Your task to perform on an android device: Go to wifi settings Image 0: 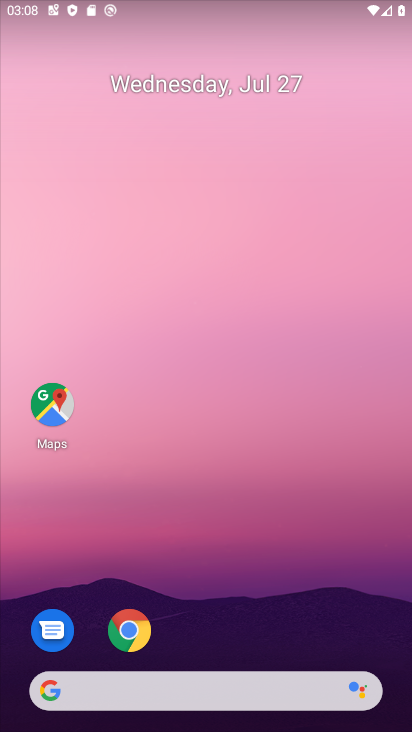
Step 0: drag from (290, 670) to (210, 46)
Your task to perform on an android device: Go to wifi settings Image 1: 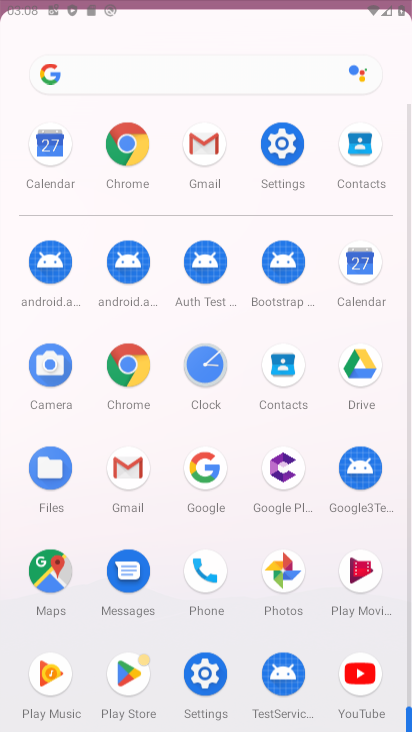
Step 1: drag from (243, 430) to (167, 131)
Your task to perform on an android device: Go to wifi settings Image 2: 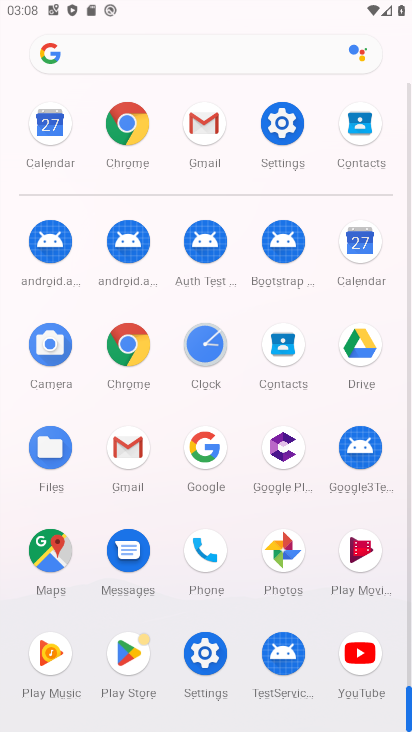
Step 2: drag from (343, 668) to (228, 147)
Your task to perform on an android device: Go to wifi settings Image 3: 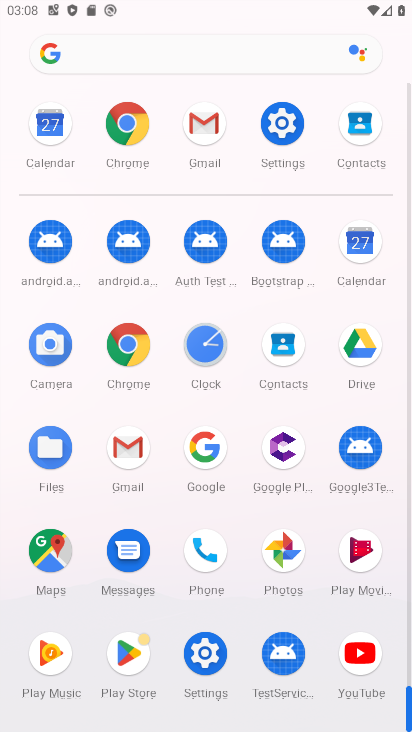
Step 3: click (202, 645)
Your task to perform on an android device: Go to wifi settings Image 4: 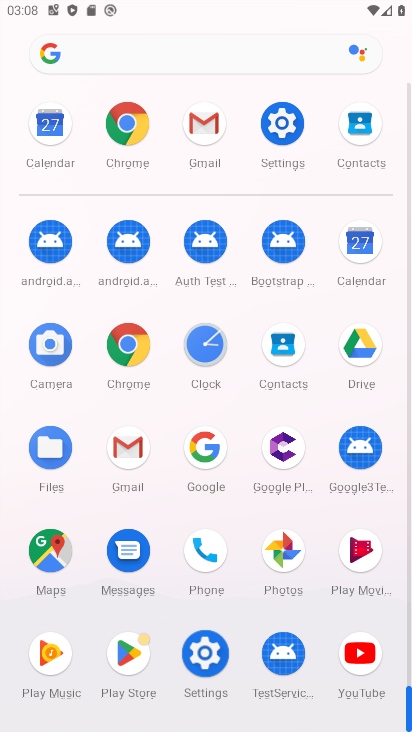
Step 4: click (207, 645)
Your task to perform on an android device: Go to wifi settings Image 5: 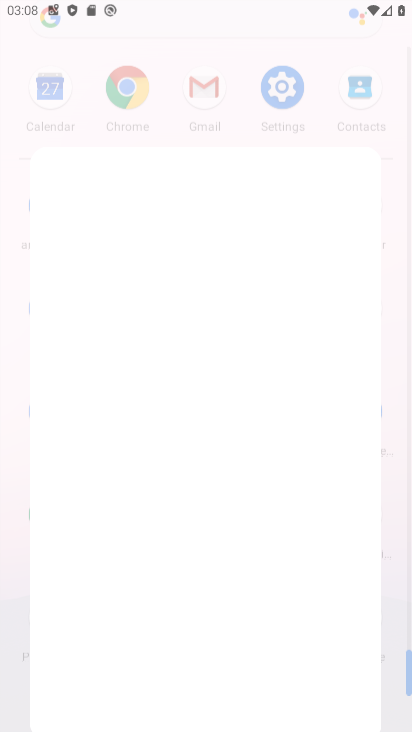
Step 5: click (208, 645)
Your task to perform on an android device: Go to wifi settings Image 6: 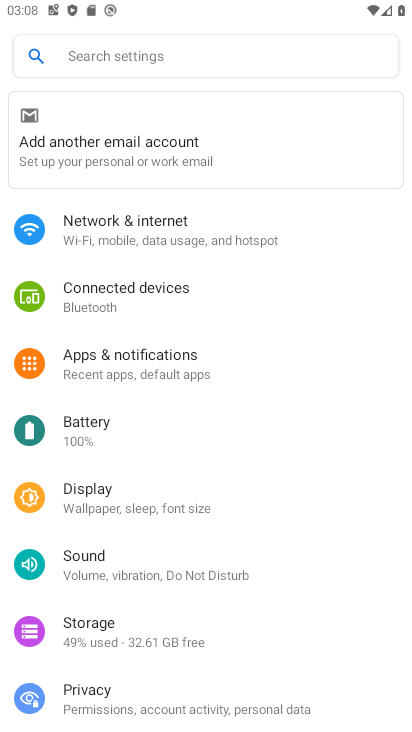
Step 6: click (98, 234)
Your task to perform on an android device: Go to wifi settings Image 7: 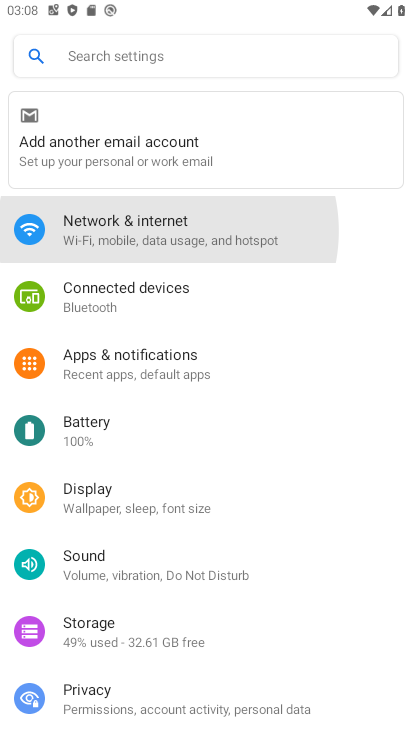
Step 7: click (106, 234)
Your task to perform on an android device: Go to wifi settings Image 8: 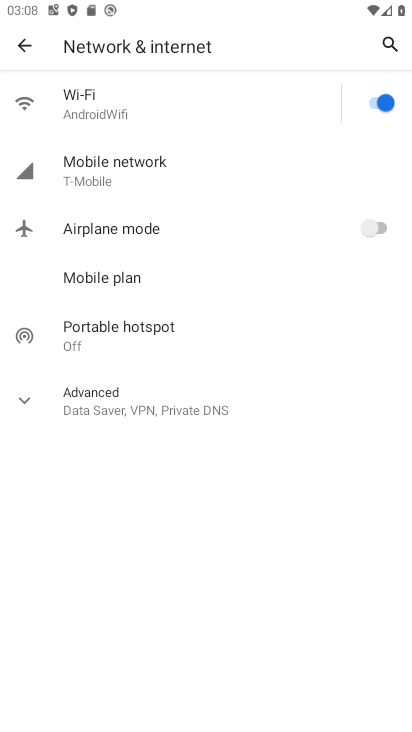
Step 8: task complete